Your task to perform on an android device: change notification settings in the gmail app Image 0: 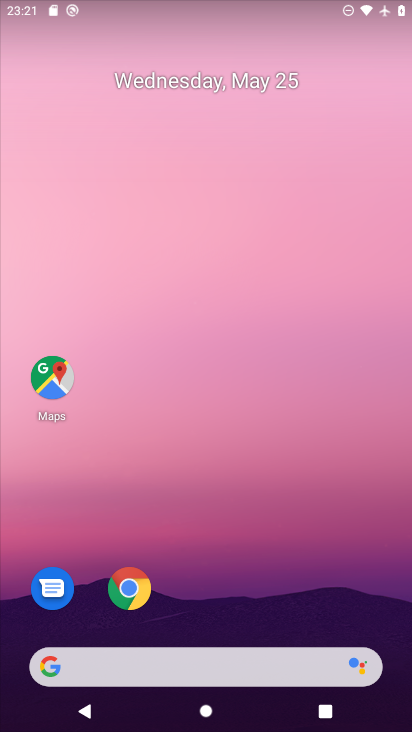
Step 0: drag from (270, 523) to (196, 33)
Your task to perform on an android device: change notification settings in the gmail app Image 1: 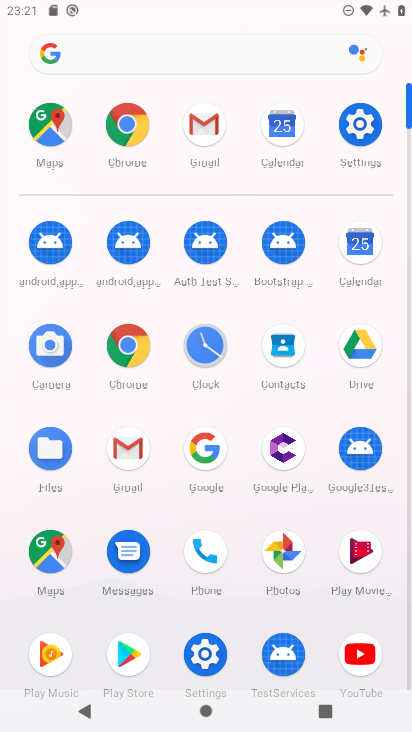
Step 1: click (199, 117)
Your task to perform on an android device: change notification settings in the gmail app Image 2: 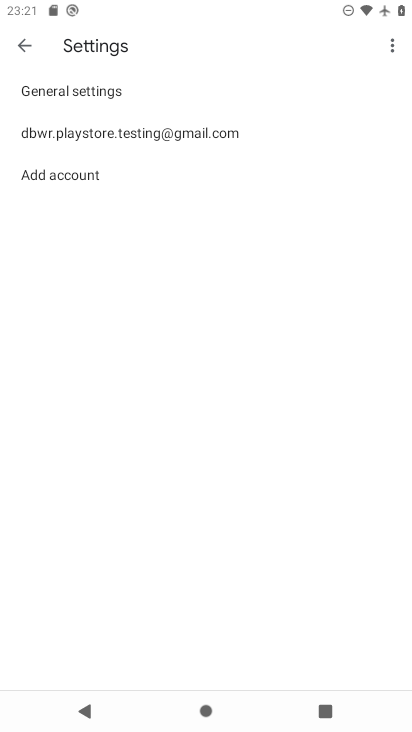
Step 2: click (87, 134)
Your task to perform on an android device: change notification settings in the gmail app Image 3: 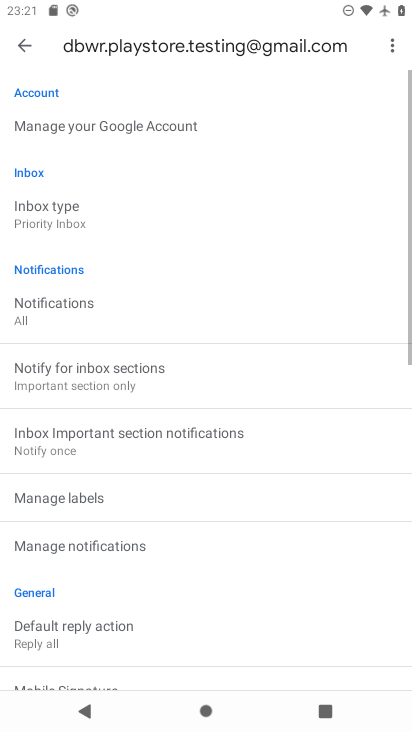
Step 3: drag from (93, 126) to (211, 619)
Your task to perform on an android device: change notification settings in the gmail app Image 4: 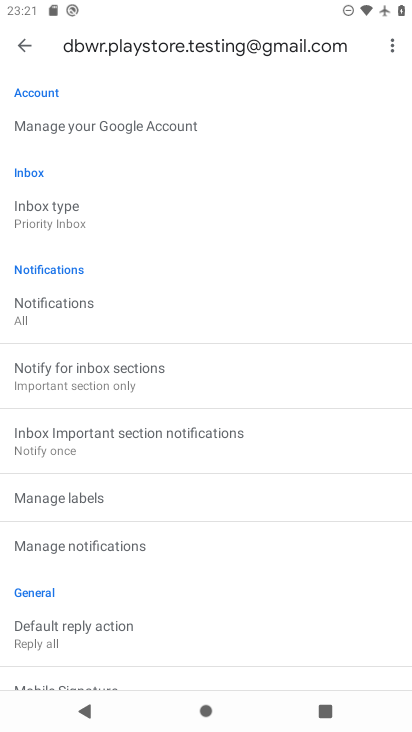
Step 4: click (89, 550)
Your task to perform on an android device: change notification settings in the gmail app Image 5: 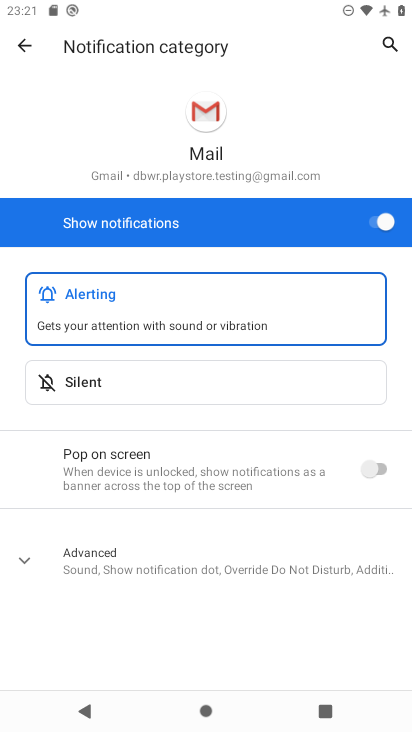
Step 5: click (371, 216)
Your task to perform on an android device: change notification settings in the gmail app Image 6: 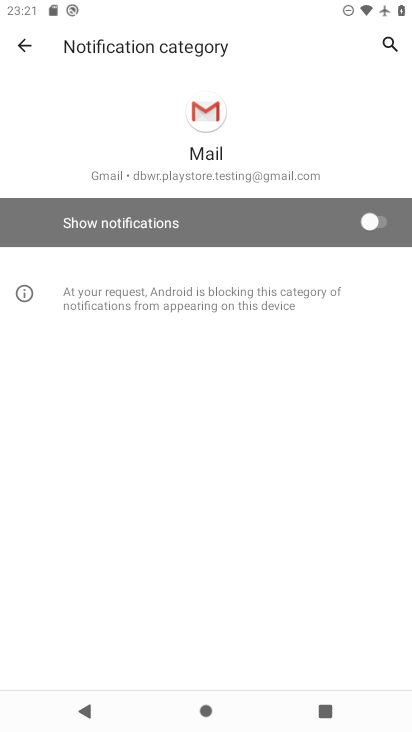
Step 6: task complete